Your task to perform on an android device: Open my contact list Image 0: 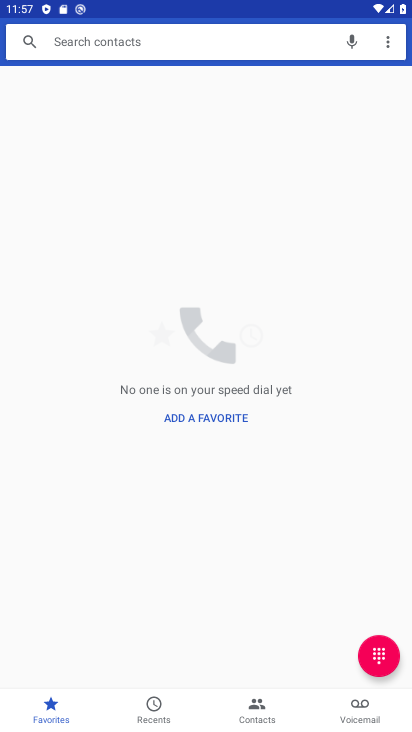
Step 0: press home button
Your task to perform on an android device: Open my contact list Image 1: 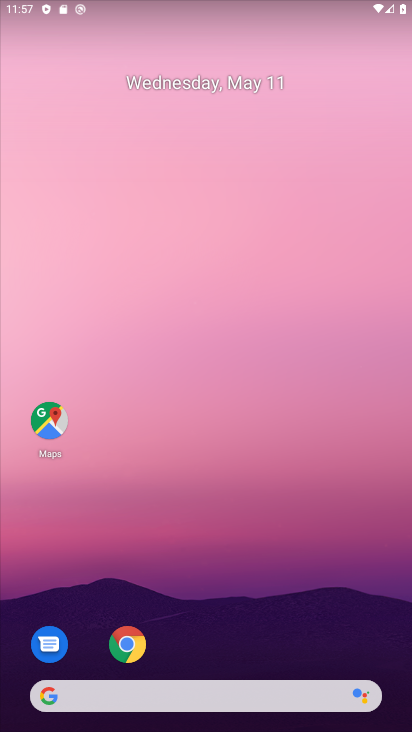
Step 1: drag from (274, 577) to (195, 103)
Your task to perform on an android device: Open my contact list Image 2: 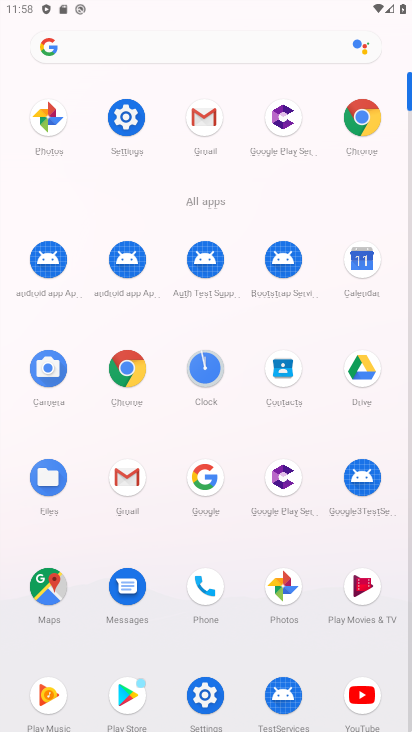
Step 2: click (291, 367)
Your task to perform on an android device: Open my contact list Image 3: 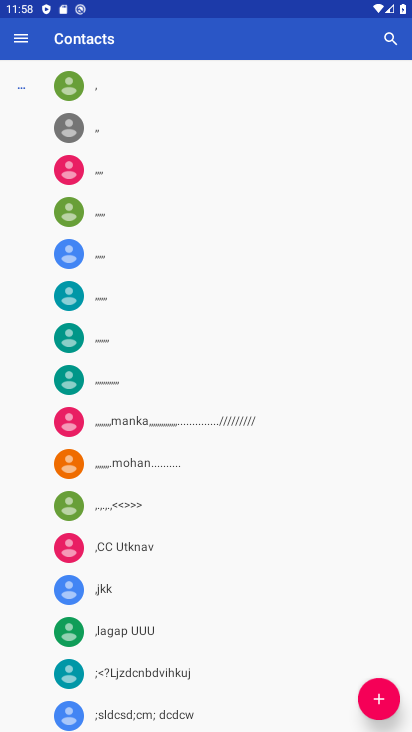
Step 3: task complete